Your task to perform on an android device: turn pop-ups off in chrome Image 0: 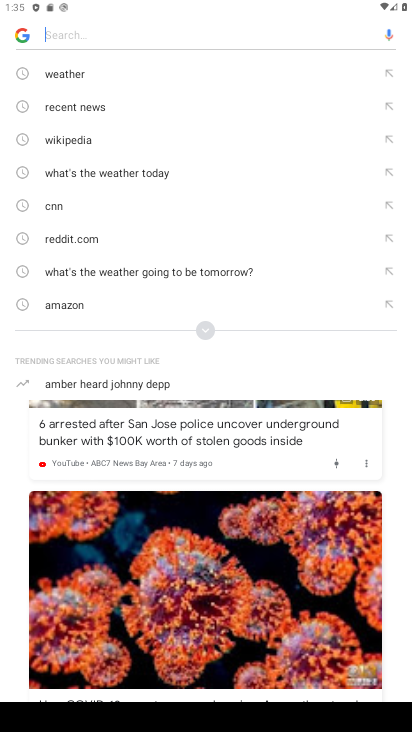
Step 0: press back button
Your task to perform on an android device: turn pop-ups off in chrome Image 1: 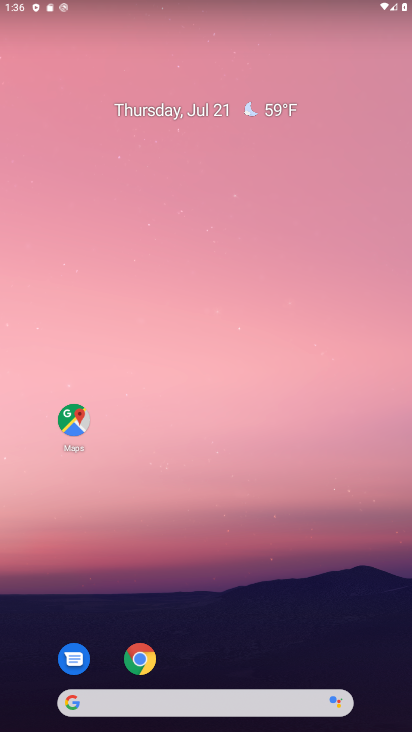
Step 1: click (141, 672)
Your task to perform on an android device: turn pop-ups off in chrome Image 2: 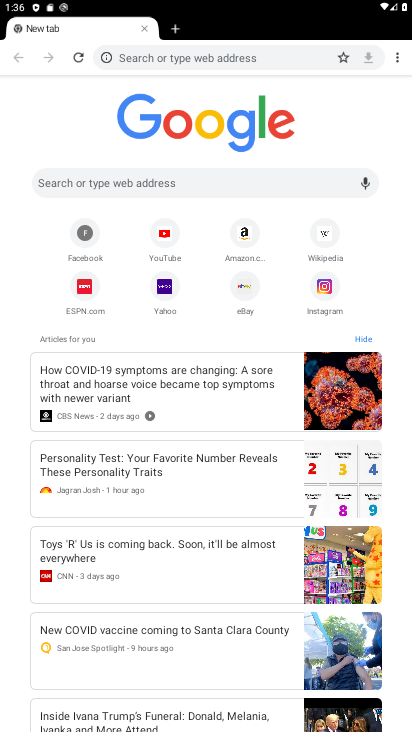
Step 2: drag from (397, 60) to (307, 263)
Your task to perform on an android device: turn pop-ups off in chrome Image 3: 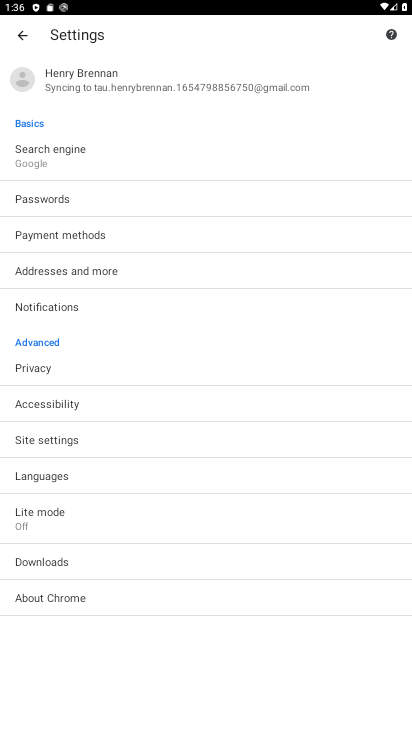
Step 3: click (90, 442)
Your task to perform on an android device: turn pop-ups off in chrome Image 4: 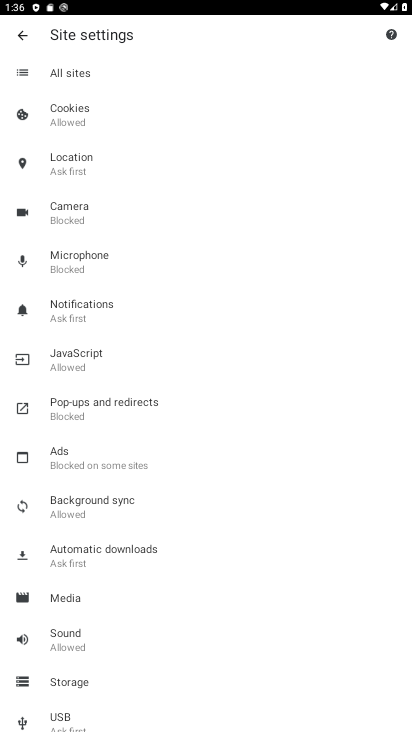
Step 4: click (117, 405)
Your task to perform on an android device: turn pop-ups off in chrome Image 5: 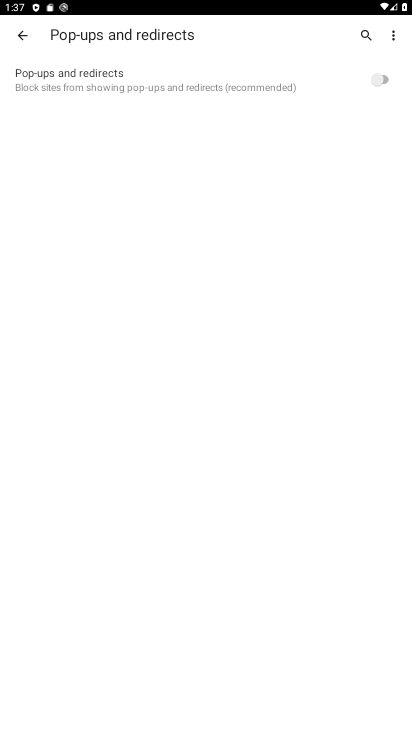
Step 5: task complete